Your task to perform on an android device: Open Google Chrome and click the shortcut for Amazon.com Image 0: 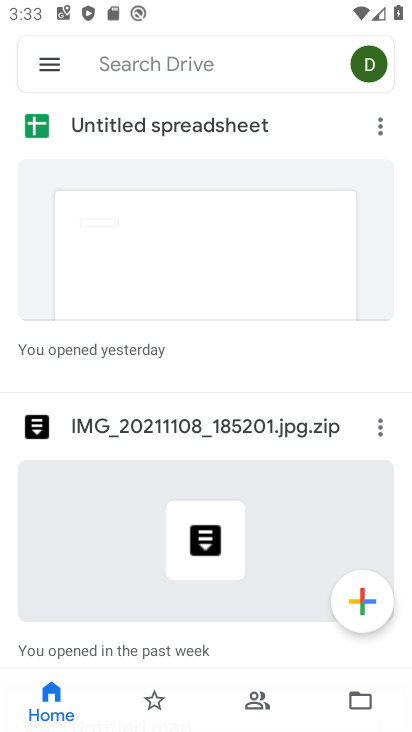
Step 0: press home button
Your task to perform on an android device: Open Google Chrome and click the shortcut for Amazon.com Image 1: 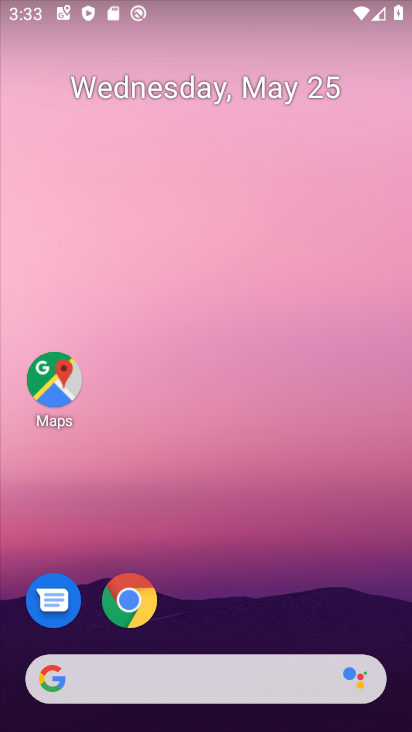
Step 1: click (121, 594)
Your task to perform on an android device: Open Google Chrome and click the shortcut for Amazon.com Image 2: 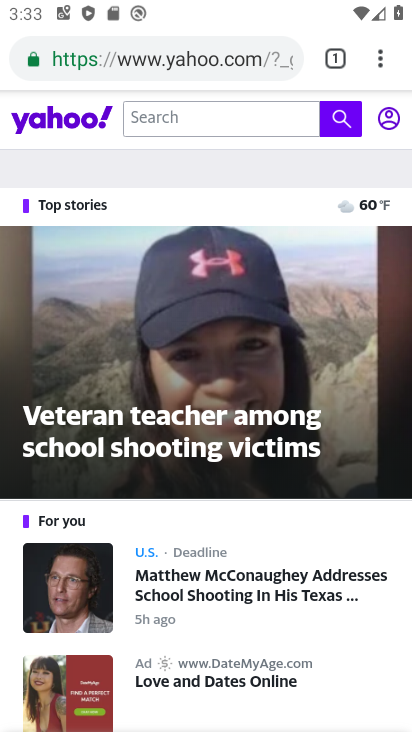
Step 2: click (338, 67)
Your task to perform on an android device: Open Google Chrome and click the shortcut for Amazon.com Image 3: 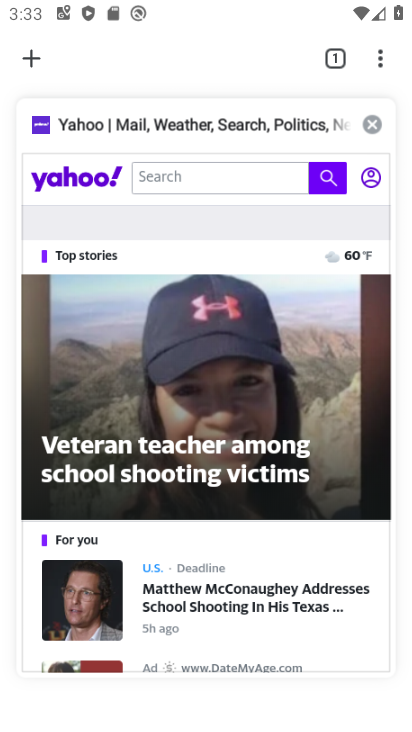
Step 3: click (376, 126)
Your task to perform on an android device: Open Google Chrome and click the shortcut for Amazon.com Image 4: 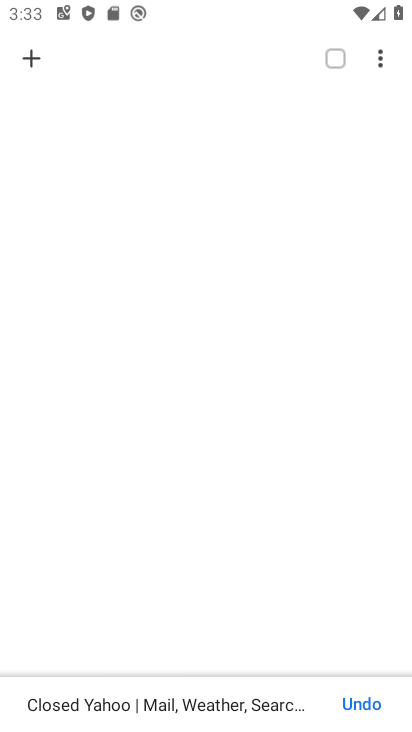
Step 4: click (23, 56)
Your task to perform on an android device: Open Google Chrome and click the shortcut for Amazon.com Image 5: 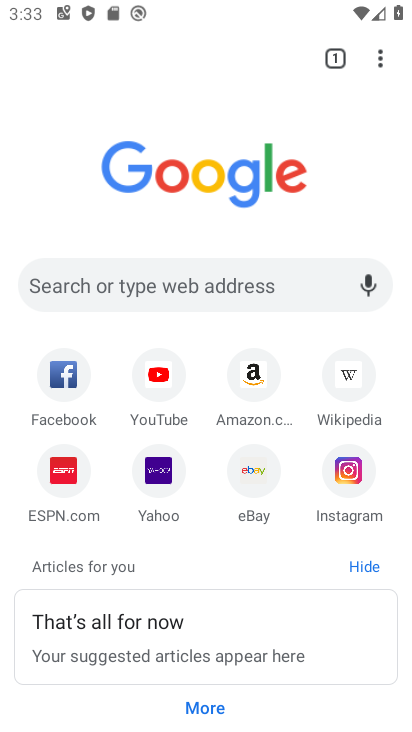
Step 5: click (248, 373)
Your task to perform on an android device: Open Google Chrome and click the shortcut for Amazon.com Image 6: 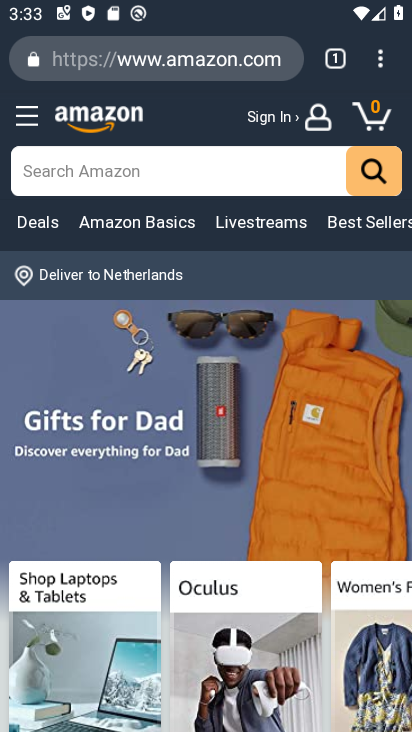
Step 6: task complete